Your task to perform on an android device: find snoozed emails in the gmail app Image 0: 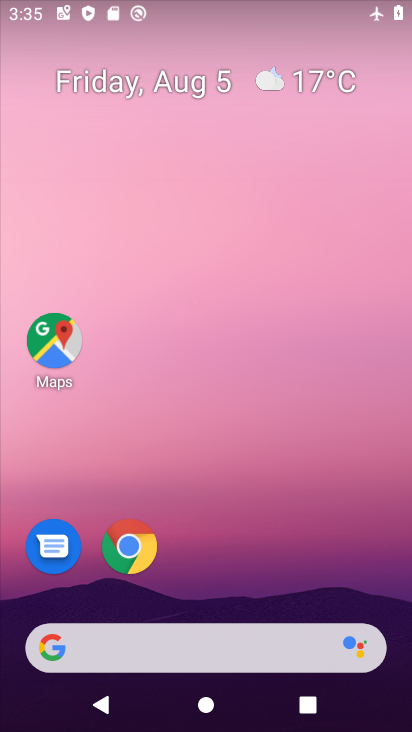
Step 0: drag from (313, 574) to (352, 83)
Your task to perform on an android device: find snoozed emails in the gmail app Image 1: 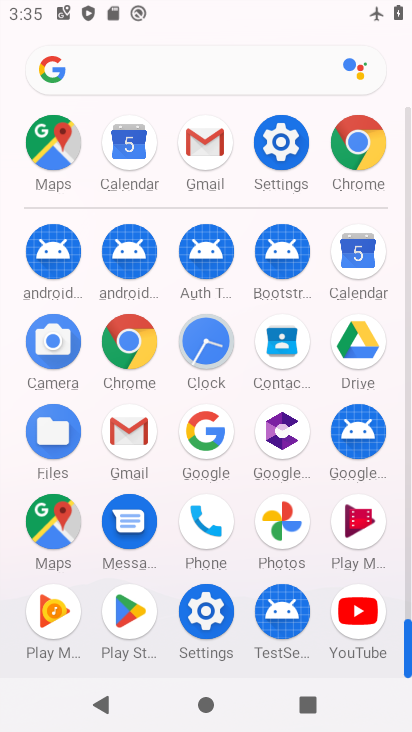
Step 1: click (196, 143)
Your task to perform on an android device: find snoozed emails in the gmail app Image 2: 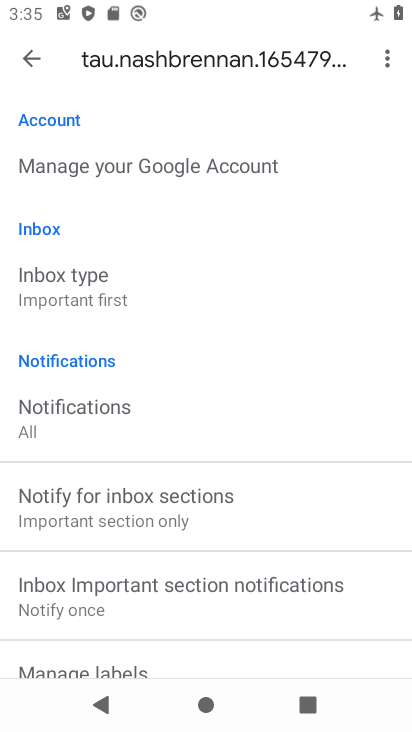
Step 2: drag from (345, 216) to (341, 387)
Your task to perform on an android device: find snoozed emails in the gmail app Image 3: 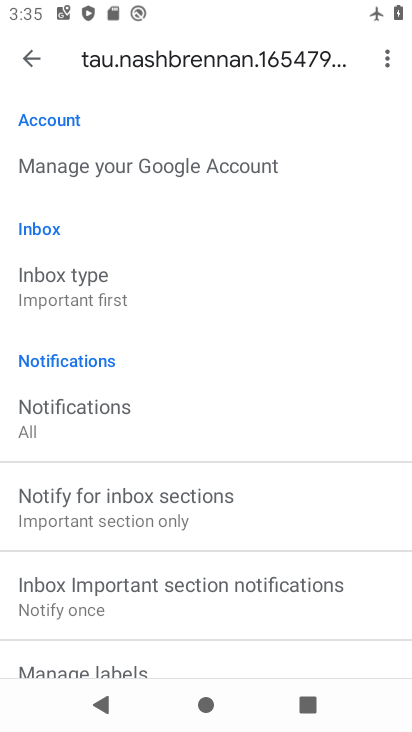
Step 3: drag from (328, 232) to (342, 395)
Your task to perform on an android device: find snoozed emails in the gmail app Image 4: 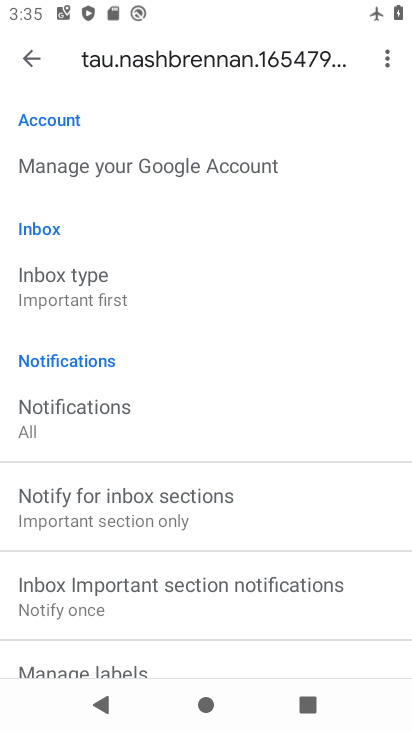
Step 4: press back button
Your task to perform on an android device: find snoozed emails in the gmail app Image 5: 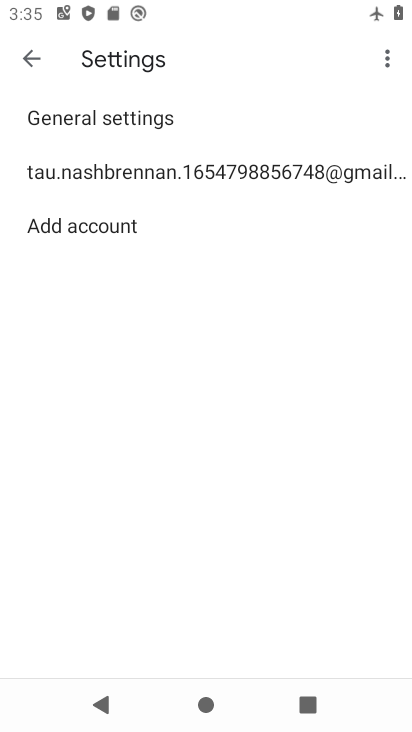
Step 5: press back button
Your task to perform on an android device: find snoozed emails in the gmail app Image 6: 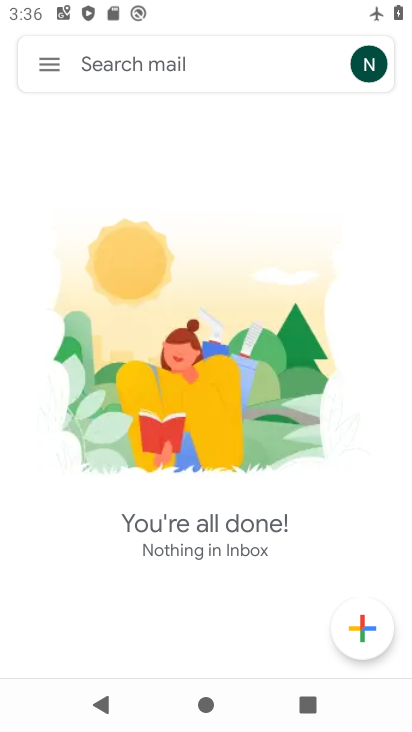
Step 6: click (53, 68)
Your task to perform on an android device: find snoozed emails in the gmail app Image 7: 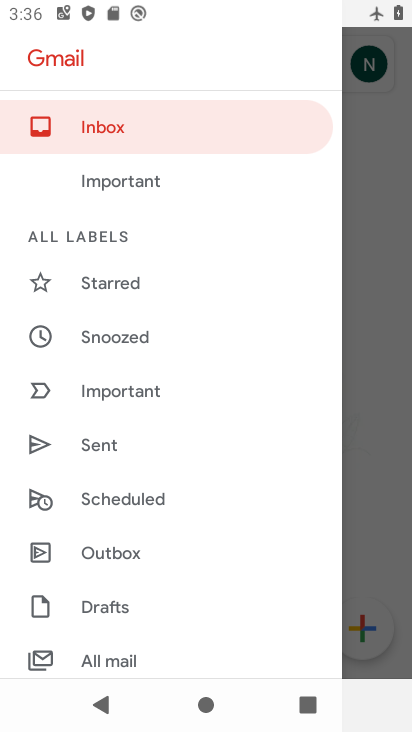
Step 7: click (139, 334)
Your task to perform on an android device: find snoozed emails in the gmail app Image 8: 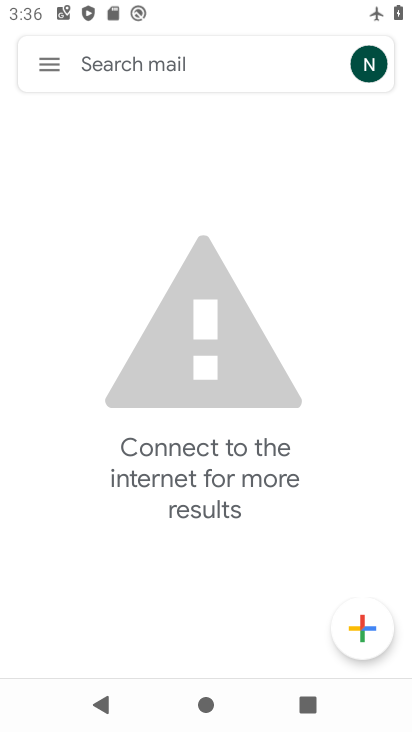
Step 8: task complete